Your task to perform on an android device: When is my next meeting? Image 0: 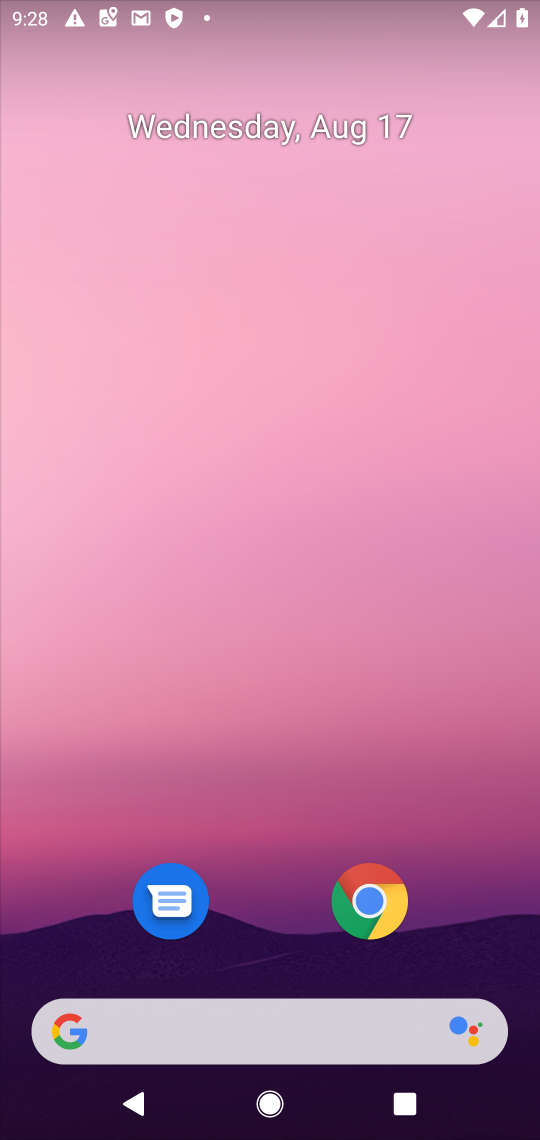
Step 0: drag from (446, 841) to (452, 113)
Your task to perform on an android device: When is my next meeting? Image 1: 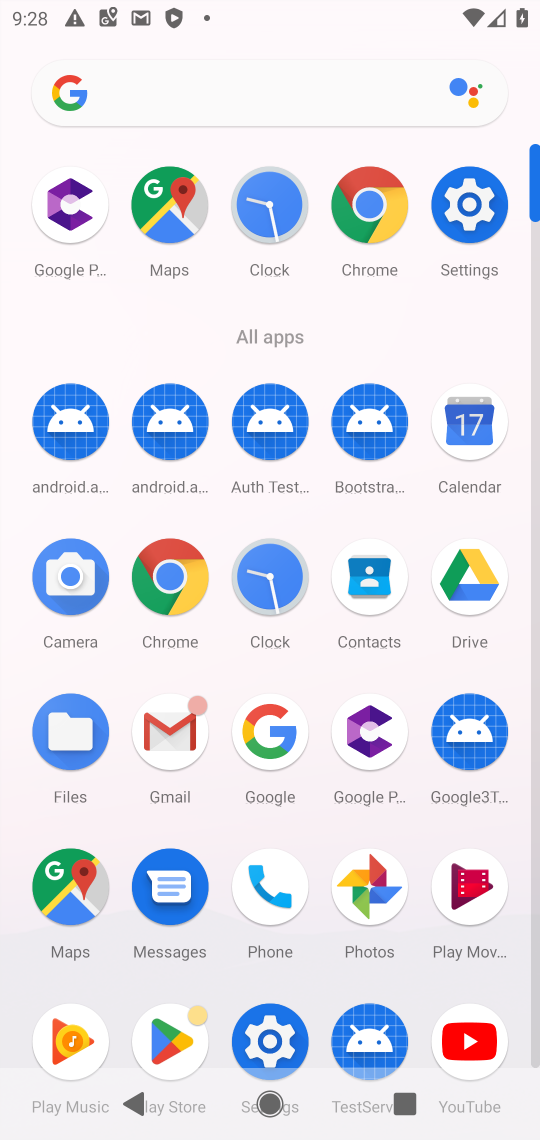
Step 1: click (462, 435)
Your task to perform on an android device: When is my next meeting? Image 2: 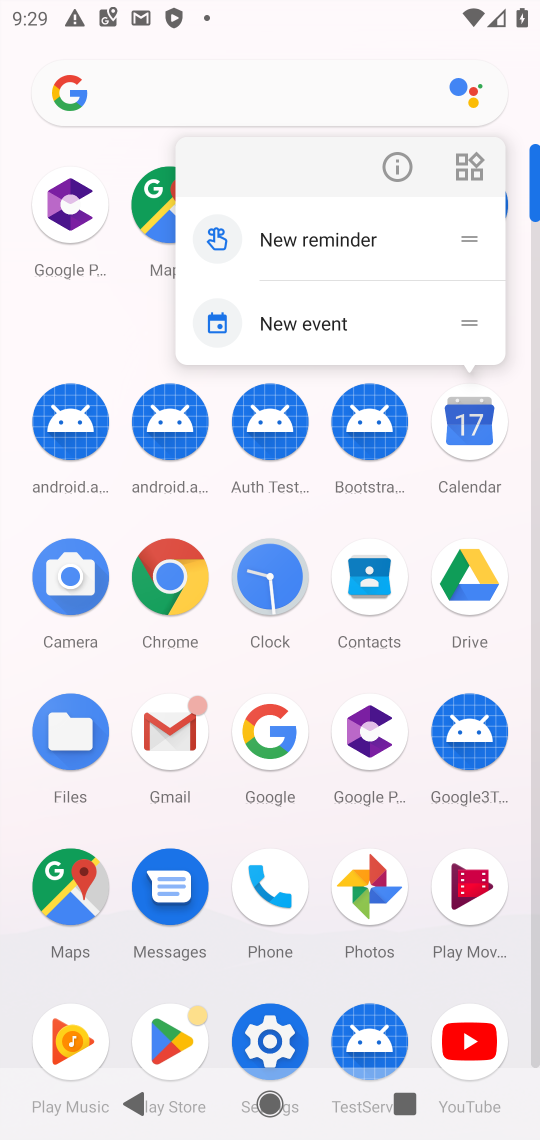
Step 2: click (462, 435)
Your task to perform on an android device: When is my next meeting? Image 3: 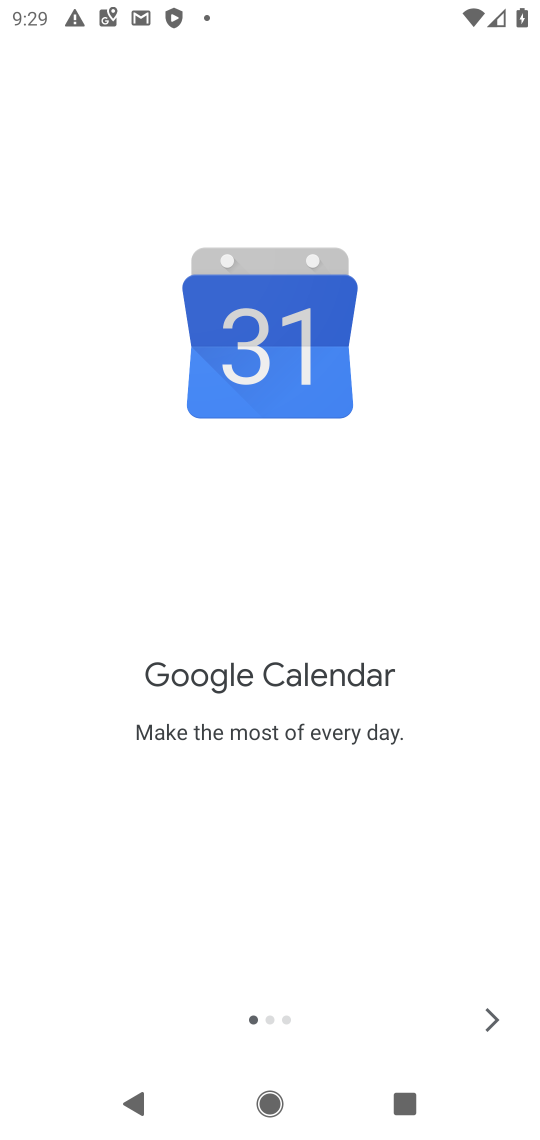
Step 3: click (493, 1047)
Your task to perform on an android device: When is my next meeting? Image 4: 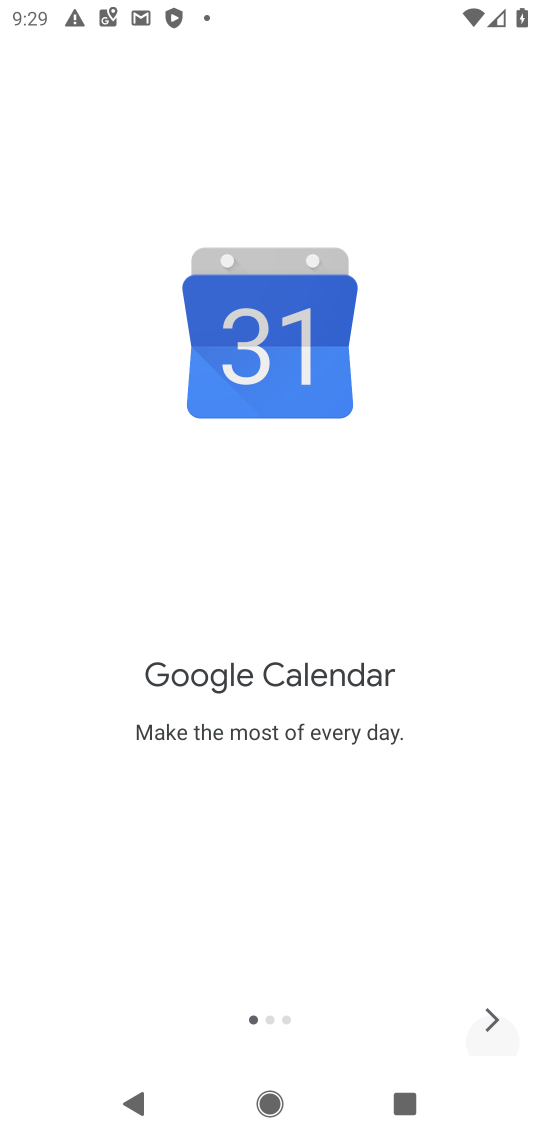
Step 4: click (492, 1027)
Your task to perform on an android device: When is my next meeting? Image 5: 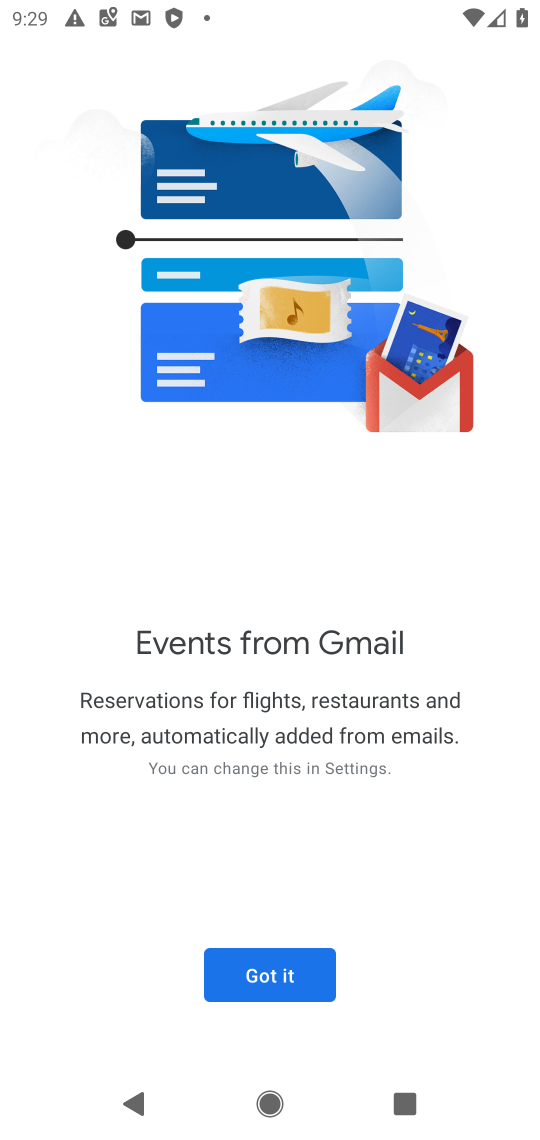
Step 5: click (492, 1021)
Your task to perform on an android device: When is my next meeting? Image 6: 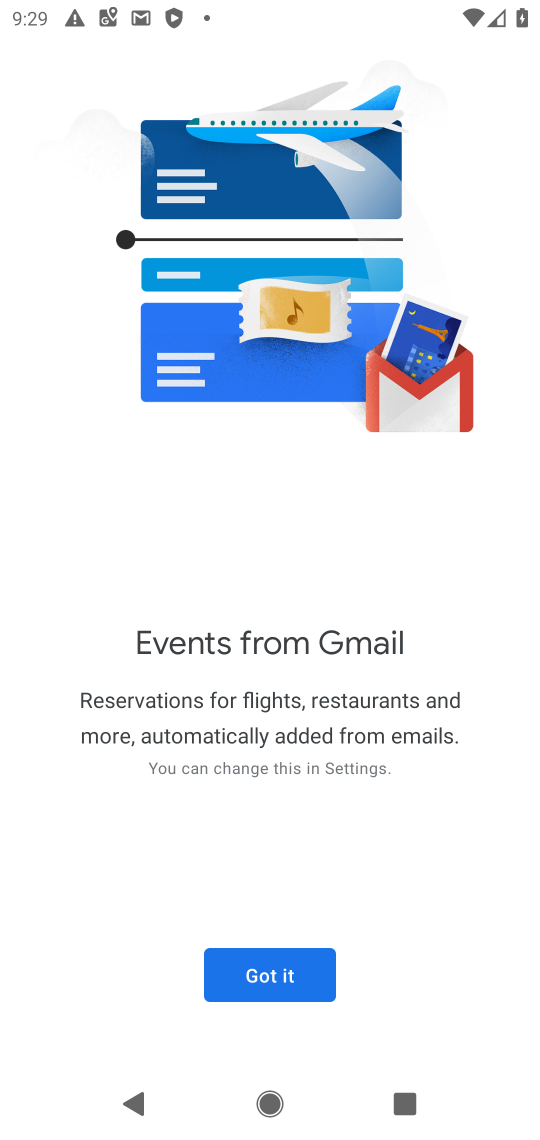
Step 6: click (310, 990)
Your task to perform on an android device: When is my next meeting? Image 7: 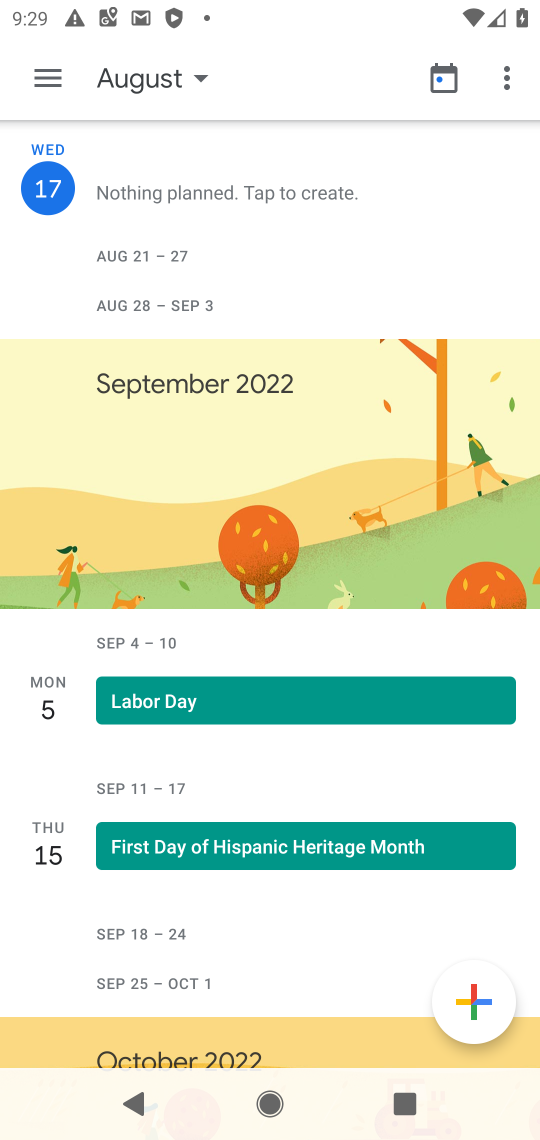
Step 7: task complete